Your task to perform on an android device: Open maps Image 0: 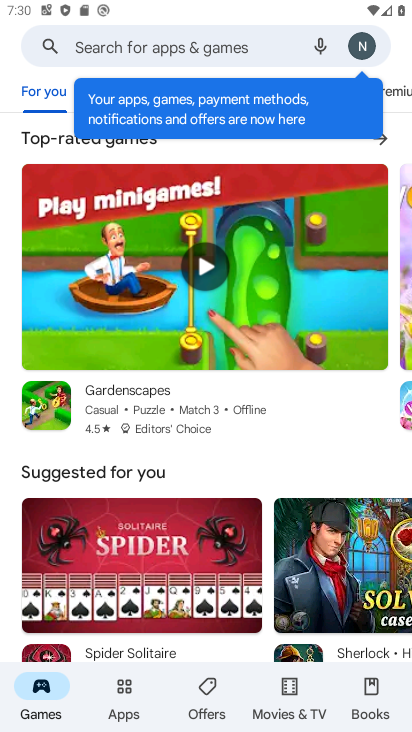
Step 0: press home button
Your task to perform on an android device: Open maps Image 1: 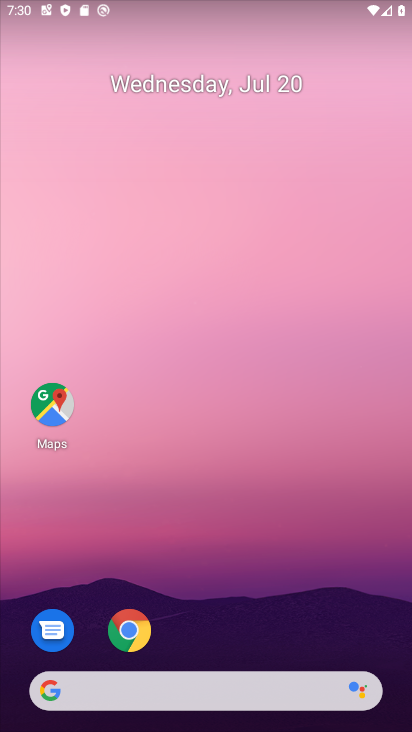
Step 1: click (52, 404)
Your task to perform on an android device: Open maps Image 2: 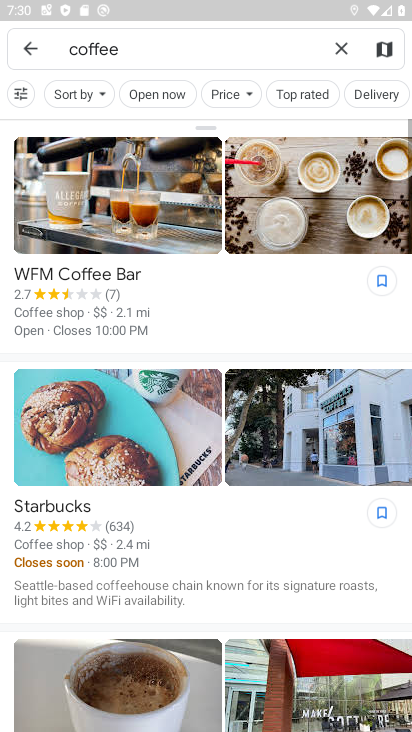
Step 2: click (345, 47)
Your task to perform on an android device: Open maps Image 3: 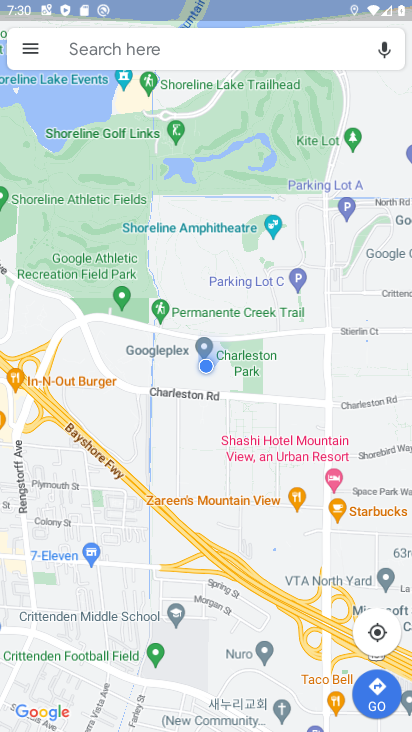
Step 3: task complete